Your task to perform on an android device: Open Wikipedia Image 0: 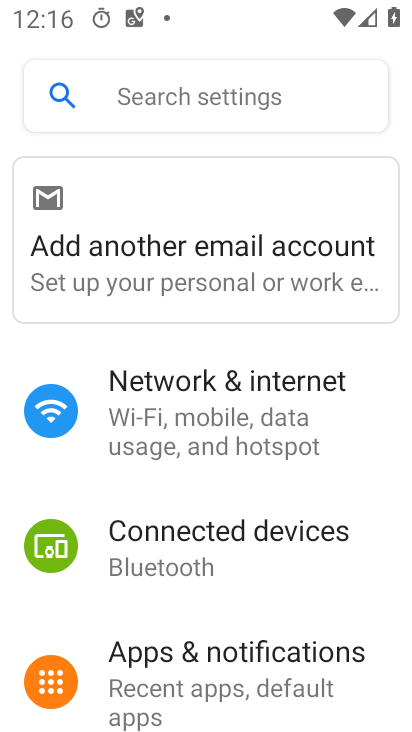
Step 0: press home button
Your task to perform on an android device: Open Wikipedia Image 1: 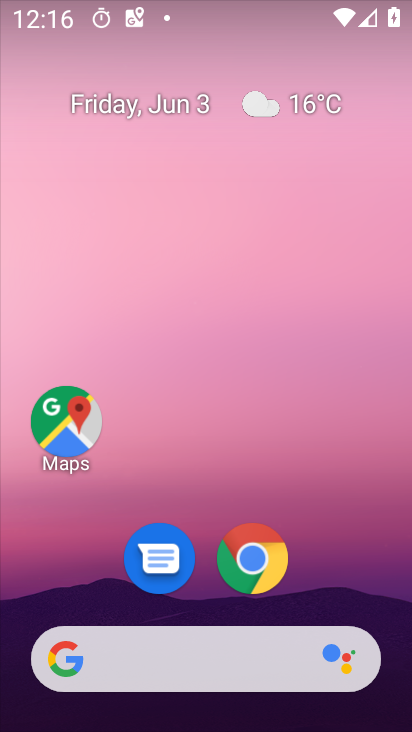
Step 1: drag from (342, 558) to (365, 199)
Your task to perform on an android device: Open Wikipedia Image 2: 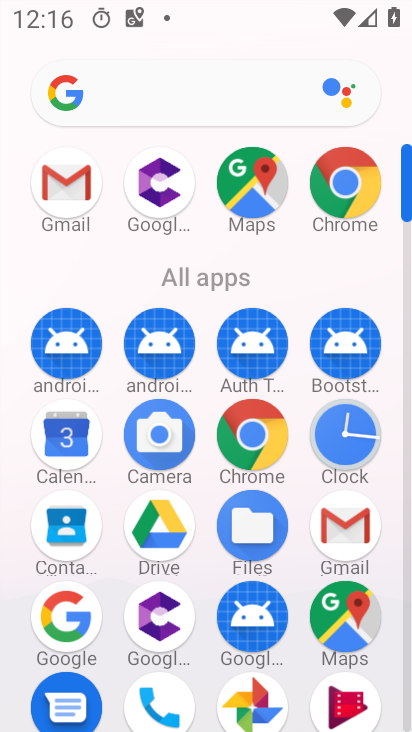
Step 2: click (262, 435)
Your task to perform on an android device: Open Wikipedia Image 3: 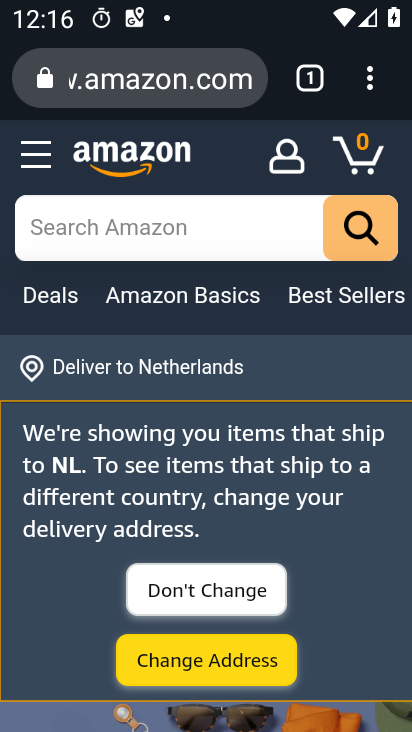
Step 3: click (221, 83)
Your task to perform on an android device: Open Wikipedia Image 4: 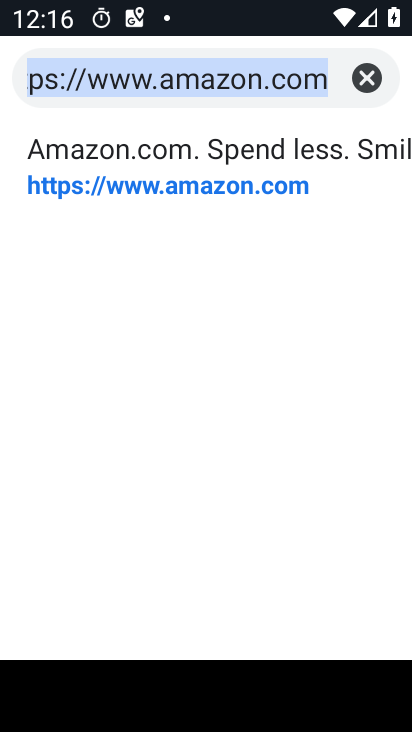
Step 4: click (359, 79)
Your task to perform on an android device: Open Wikipedia Image 5: 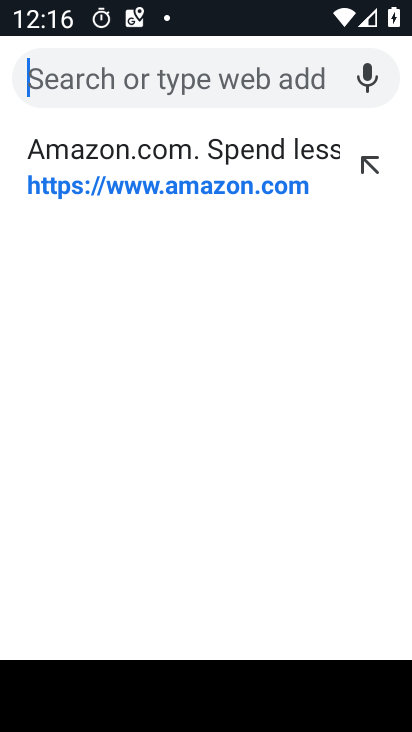
Step 5: type "wikipedia"
Your task to perform on an android device: Open Wikipedia Image 6: 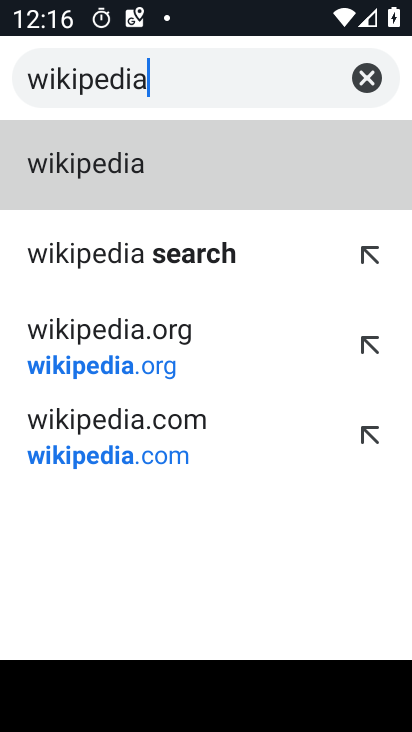
Step 6: click (175, 173)
Your task to perform on an android device: Open Wikipedia Image 7: 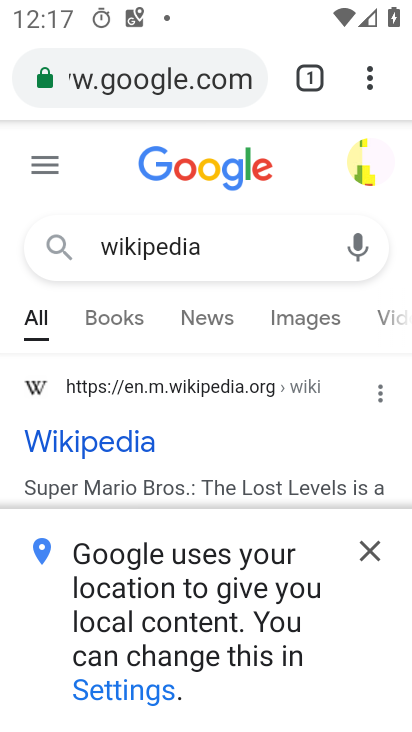
Step 7: click (122, 445)
Your task to perform on an android device: Open Wikipedia Image 8: 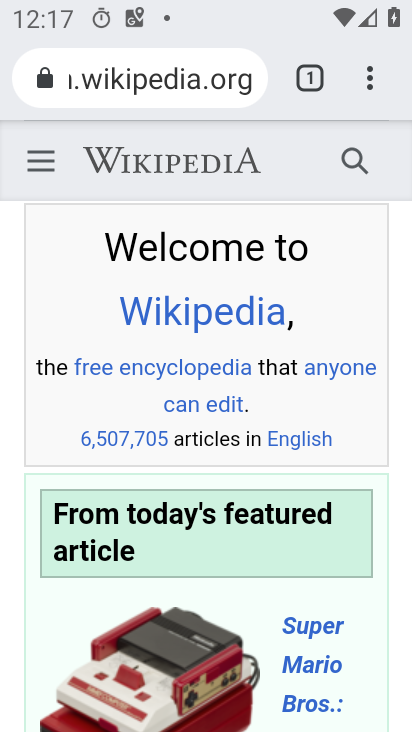
Step 8: task complete